Your task to perform on an android device: Clear the cart on ebay. Search for "macbook pro" on ebay, select the first entry, add it to the cart, then select checkout. Image 0: 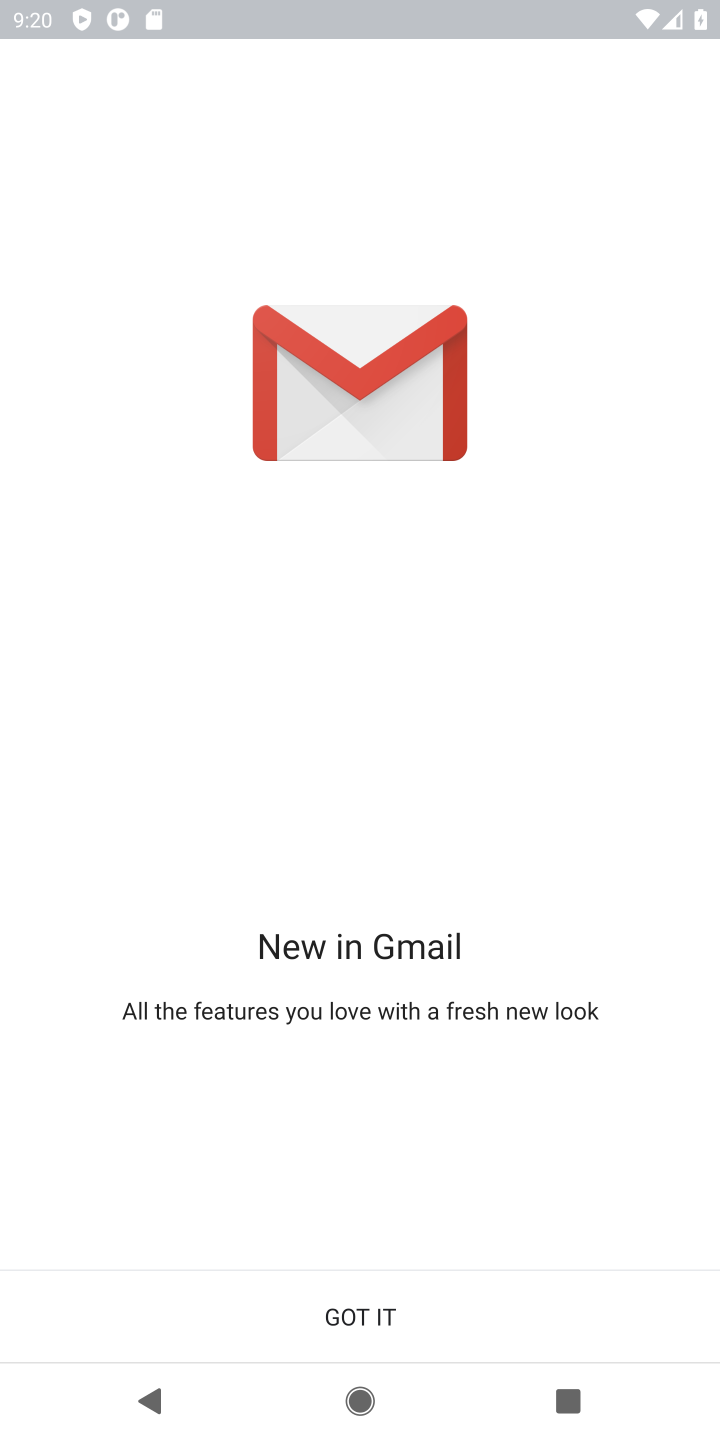
Step 0: press home button
Your task to perform on an android device: Clear the cart on ebay. Search for "macbook pro" on ebay, select the first entry, add it to the cart, then select checkout. Image 1: 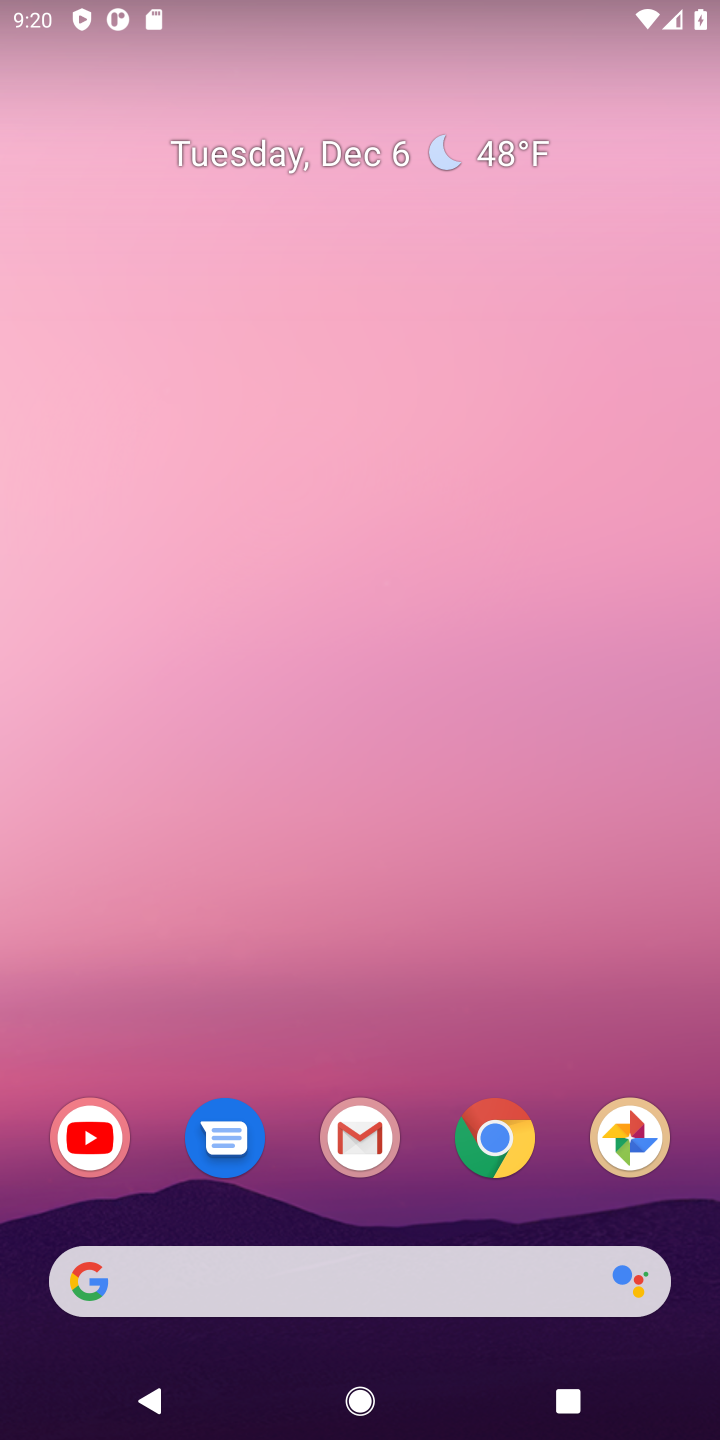
Step 1: click (493, 1151)
Your task to perform on an android device: Clear the cart on ebay. Search for "macbook pro" on ebay, select the first entry, add it to the cart, then select checkout. Image 2: 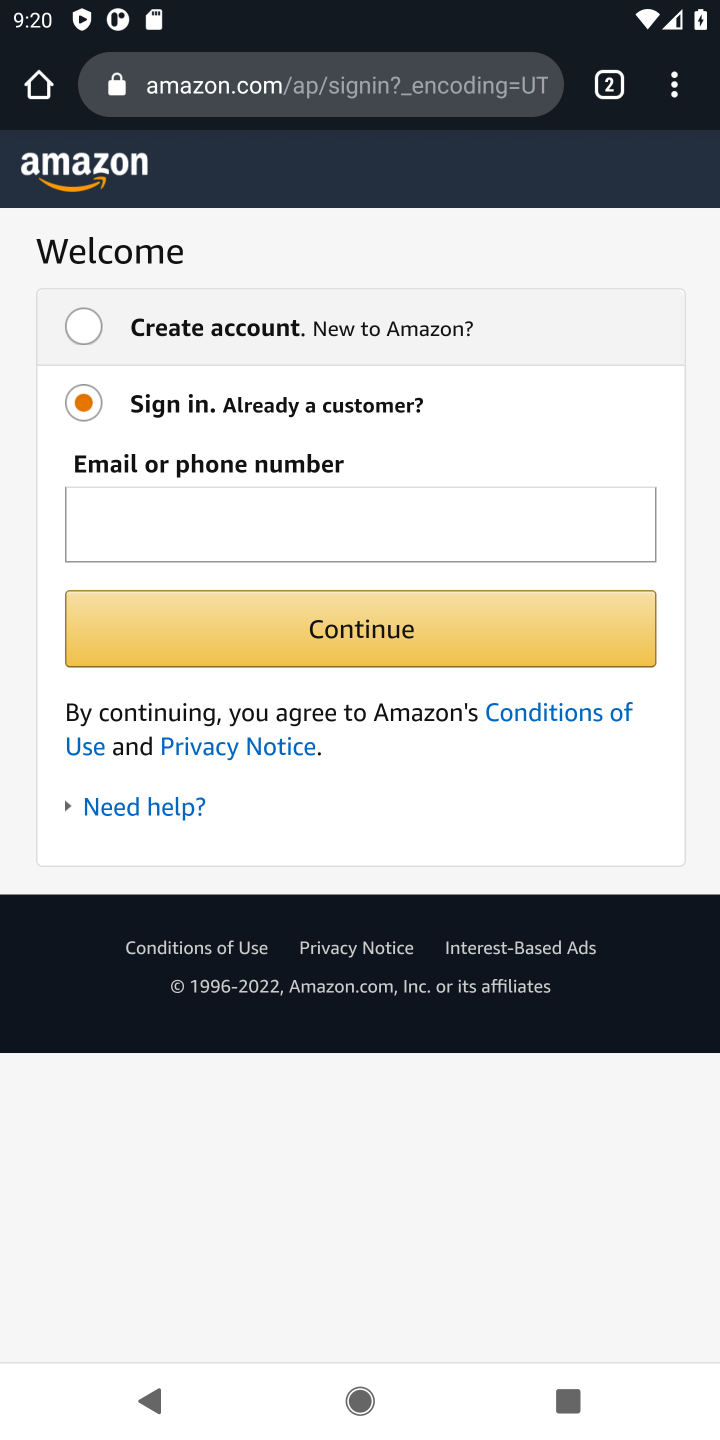
Step 2: click (292, 99)
Your task to perform on an android device: Clear the cart on ebay. Search for "macbook pro" on ebay, select the first entry, add it to the cart, then select checkout. Image 3: 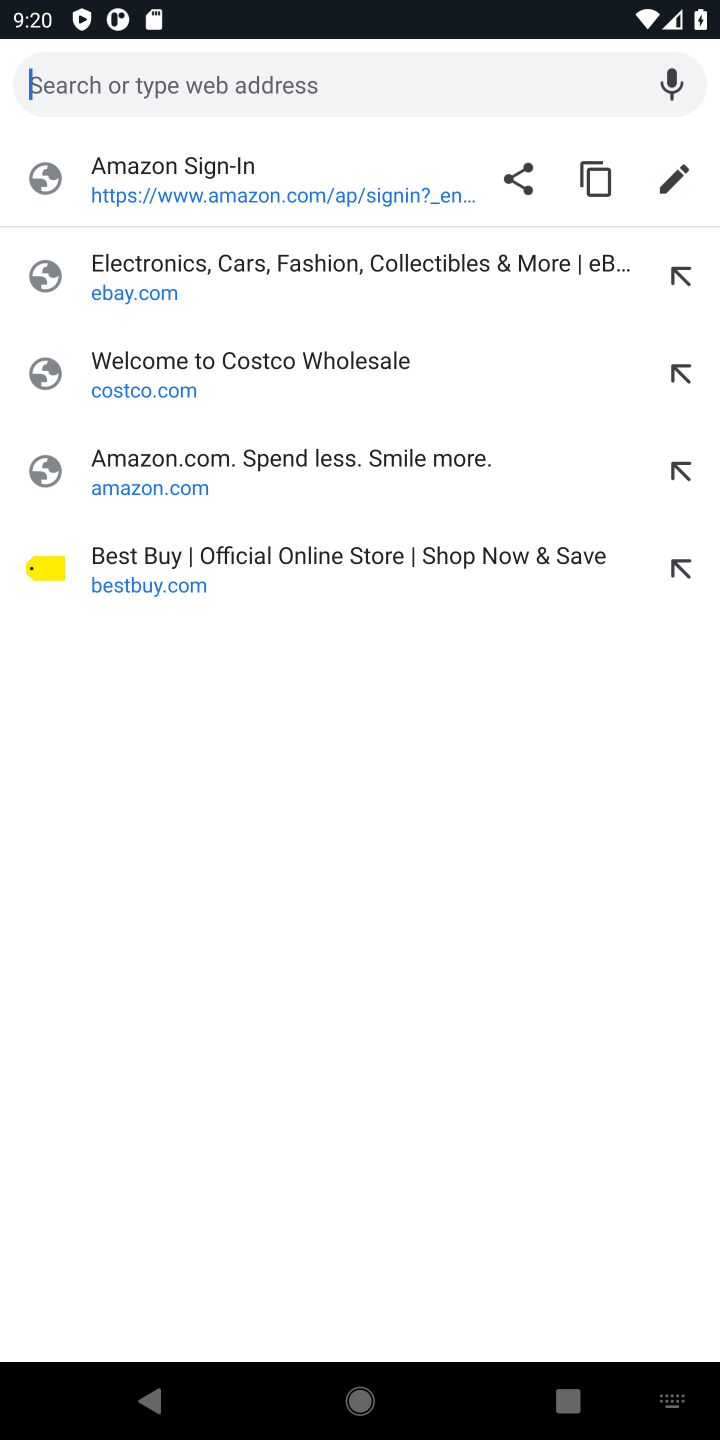
Step 3: click (145, 278)
Your task to perform on an android device: Clear the cart on ebay. Search for "macbook pro" on ebay, select the first entry, add it to the cart, then select checkout. Image 4: 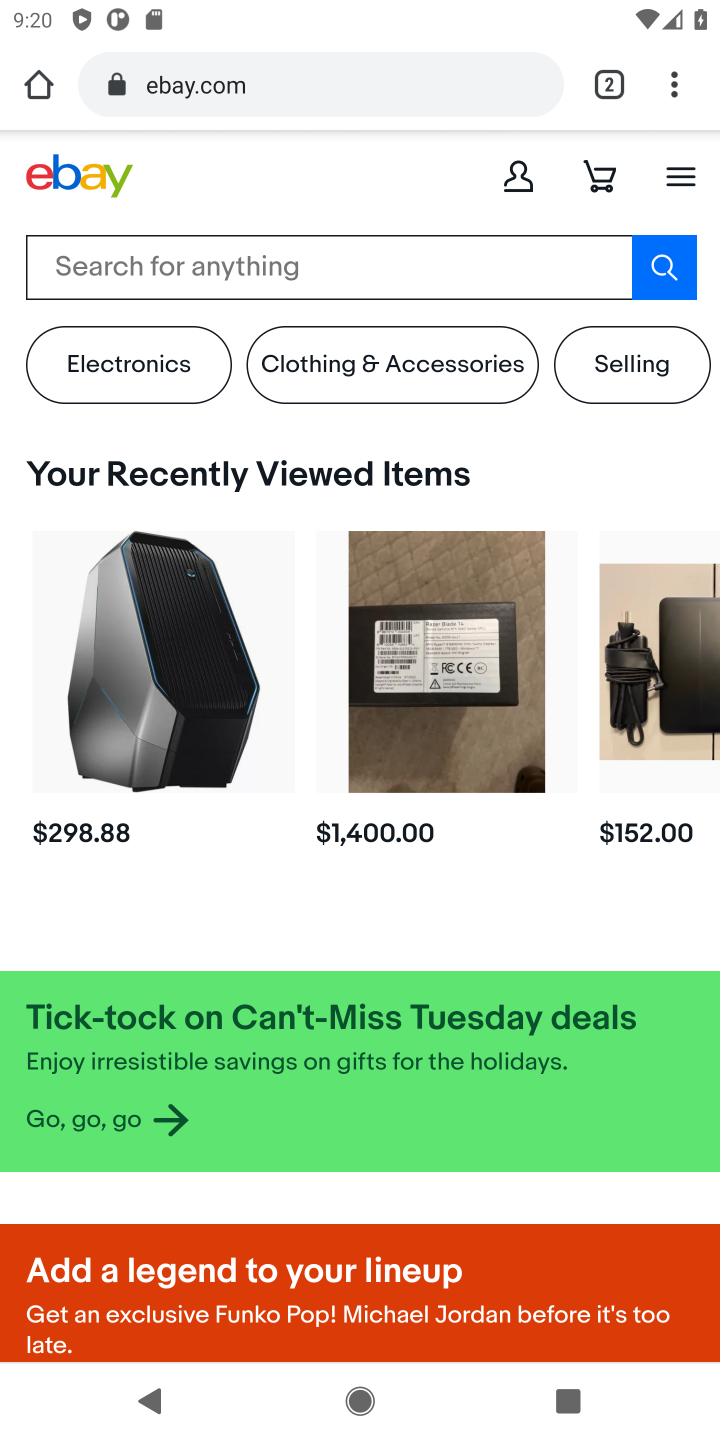
Step 4: click (596, 179)
Your task to perform on an android device: Clear the cart on ebay. Search for "macbook pro" on ebay, select the first entry, add it to the cart, then select checkout. Image 5: 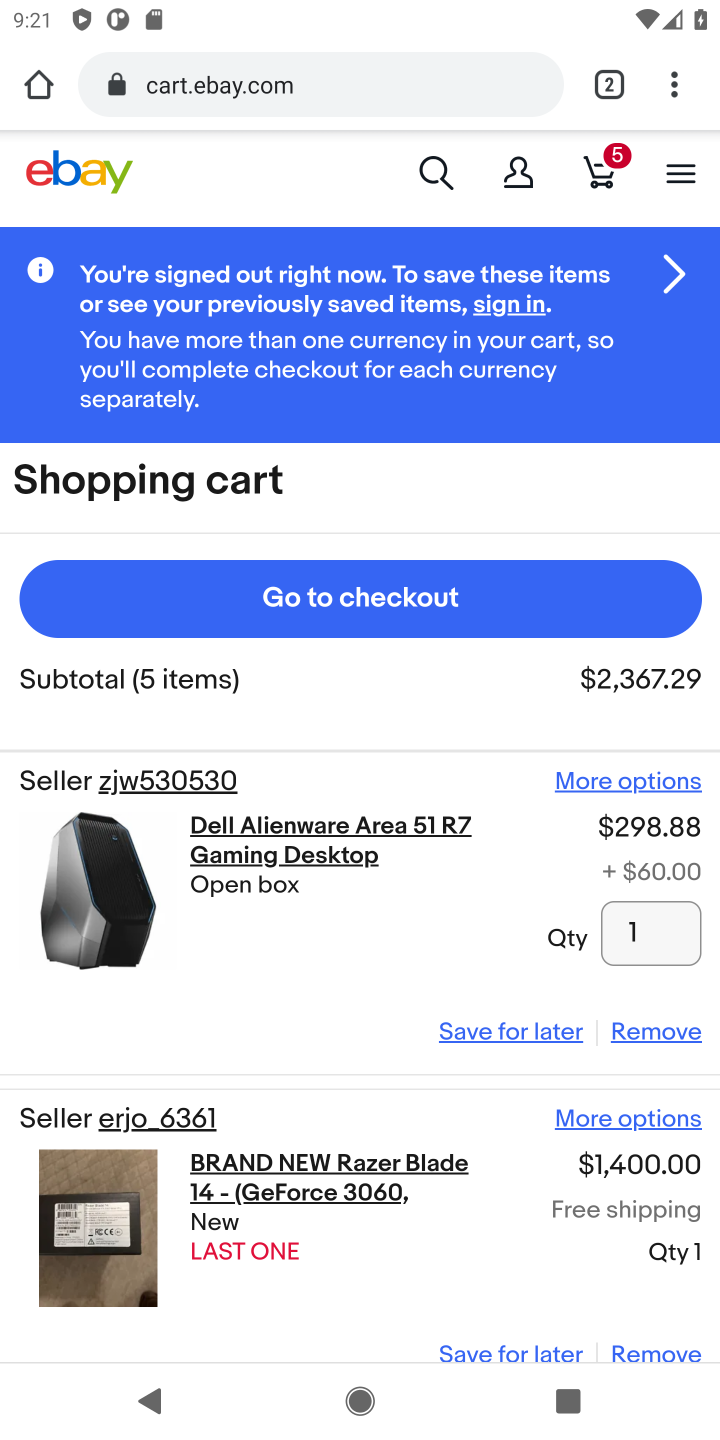
Step 5: click (633, 1030)
Your task to perform on an android device: Clear the cart on ebay. Search for "macbook pro" on ebay, select the first entry, add it to the cart, then select checkout. Image 6: 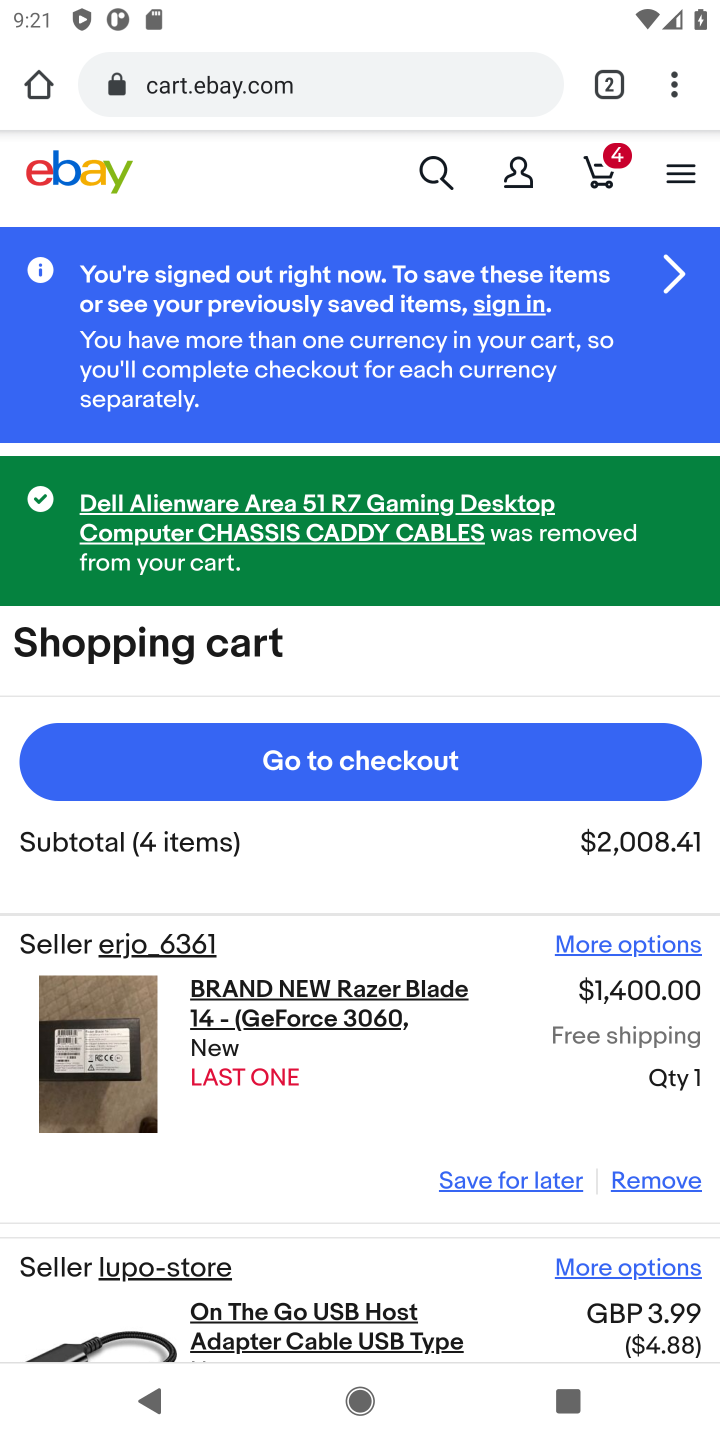
Step 6: click (641, 1181)
Your task to perform on an android device: Clear the cart on ebay. Search for "macbook pro" on ebay, select the first entry, add it to the cart, then select checkout. Image 7: 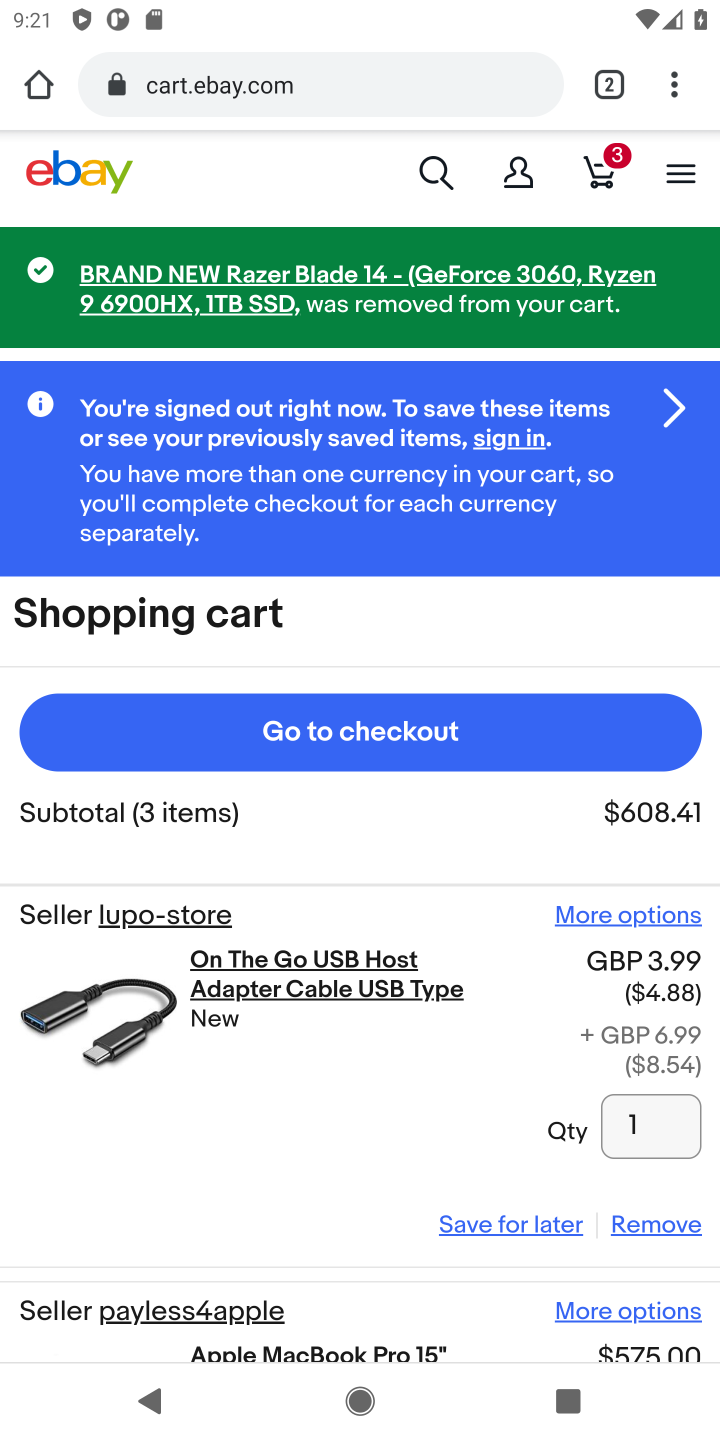
Step 7: click (642, 1232)
Your task to perform on an android device: Clear the cart on ebay. Search for "macbook pro" on ebay, select the first entry, add it to the cart, then select checkout. Image 8: 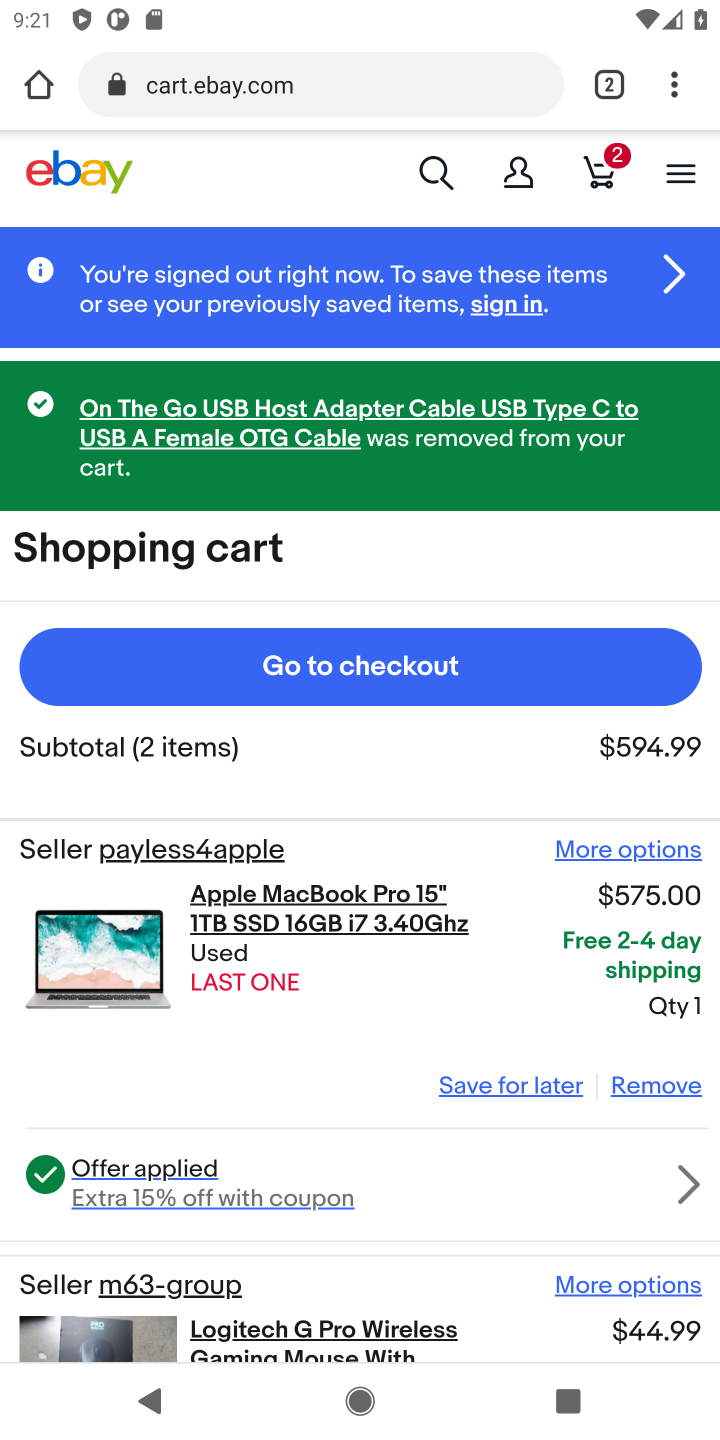
Step 8: click (654, 1096)
Your task to perform on an android device: Clear the cart on ebay. Search for "macbook pro" on ebay, select the first entry, add it to the cart, then select checkout. Image 9: 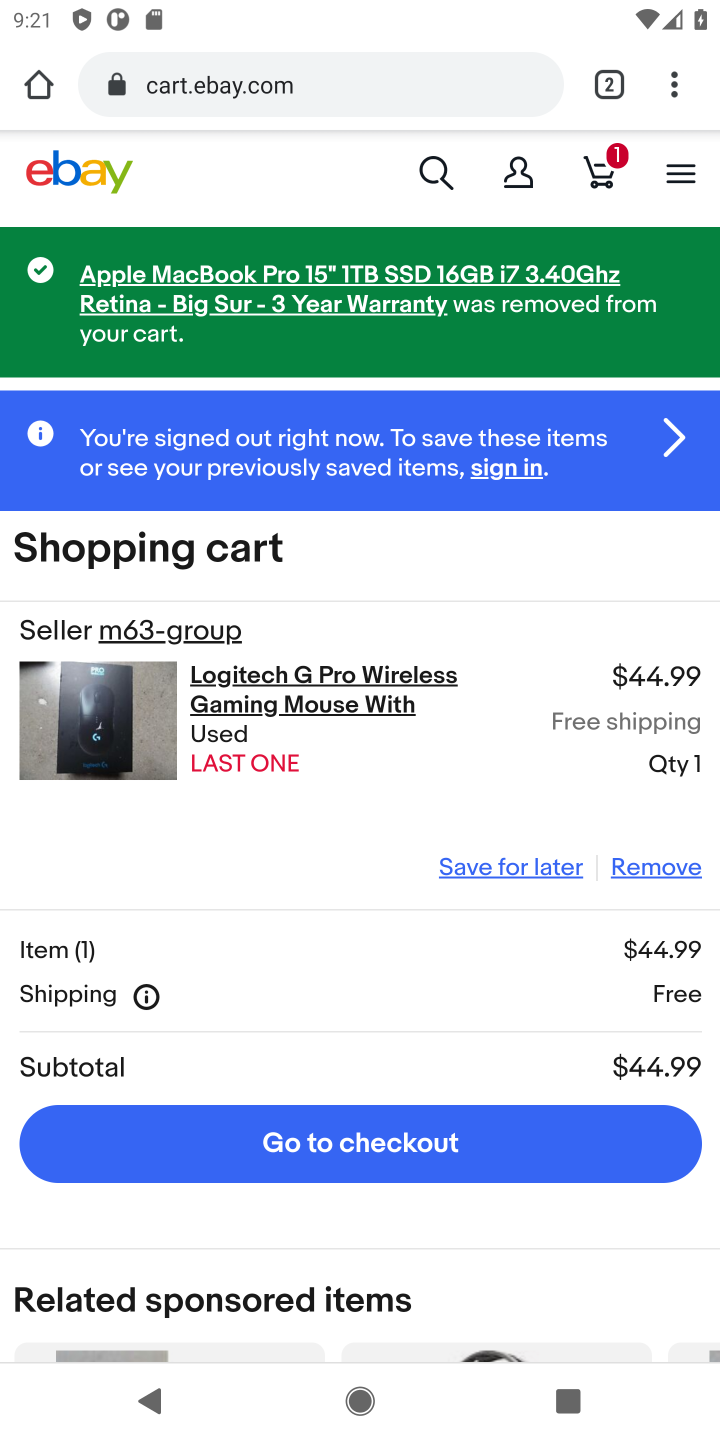
Step 9: click (653, 876)
Your task to perform on an android device: Clear the cart on ebay. Search for "macbook pro" on ebay, select the first entry, add it to the cart, then select checkout. Image 10: 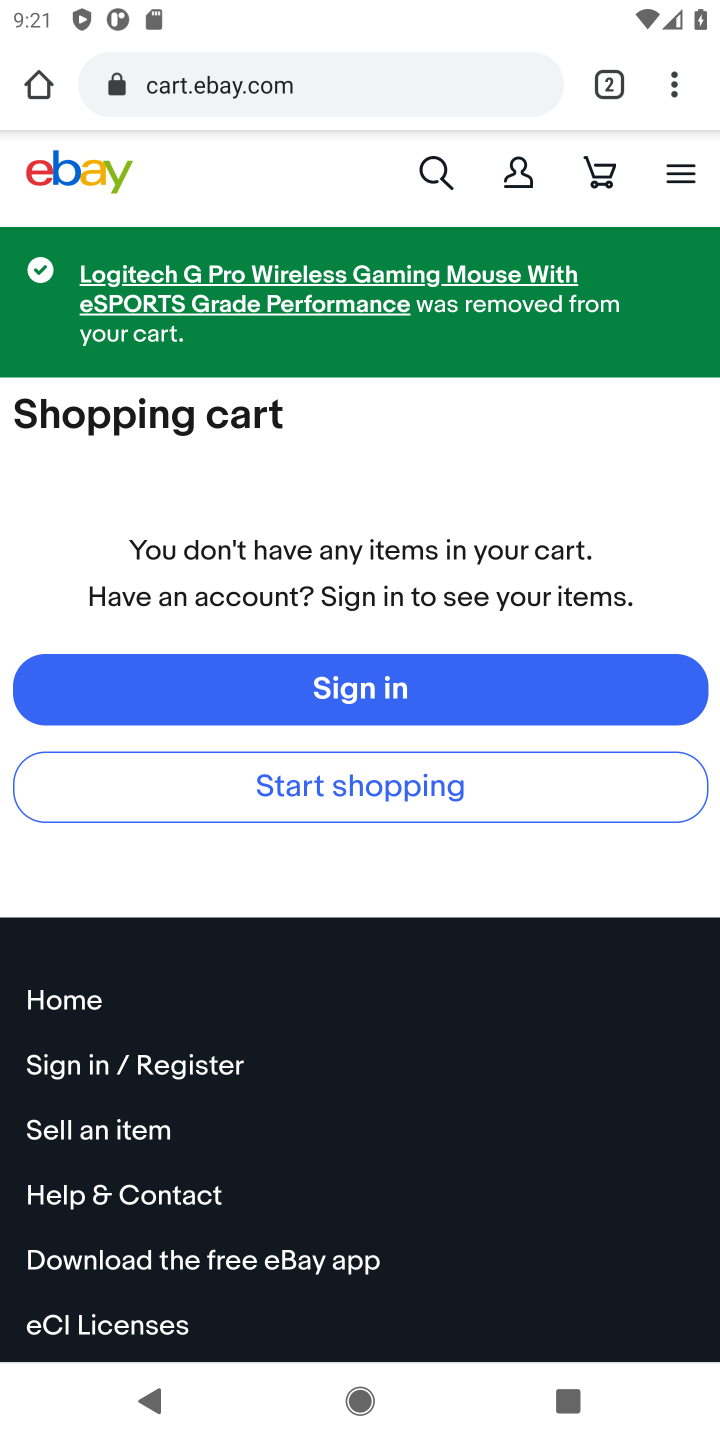
Step 10: click (435, 182)
Your task to perform on an android device: Clear the cart on ebay. Search for "macbook pro" on ebay, select the first entry, add it to the cart, then select checkout. Image 11: 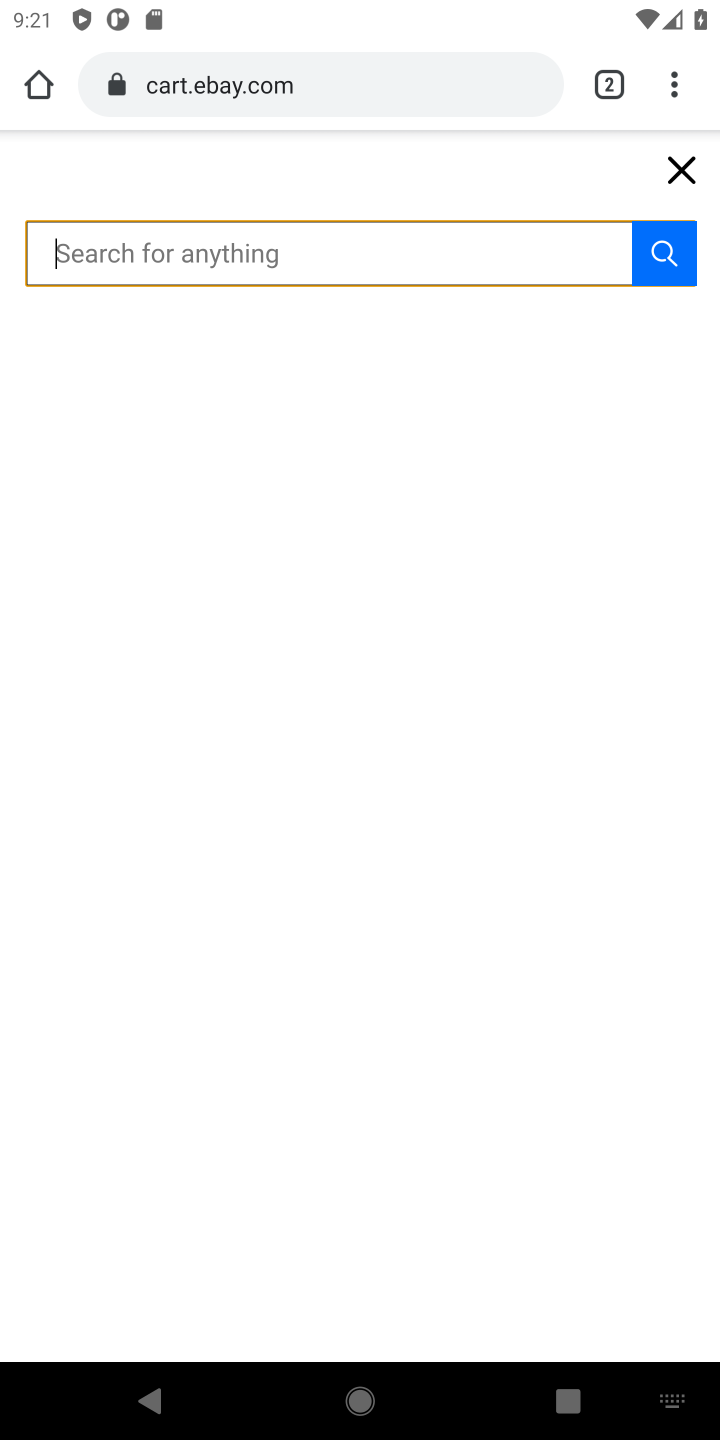
Step 11: type "macbook pro"
Your task to perform on an android device: Clear the cart on ebay. Search for "macbook pro" on ebay, select the first entry, add it to the cart, then select checkout. Image 12: 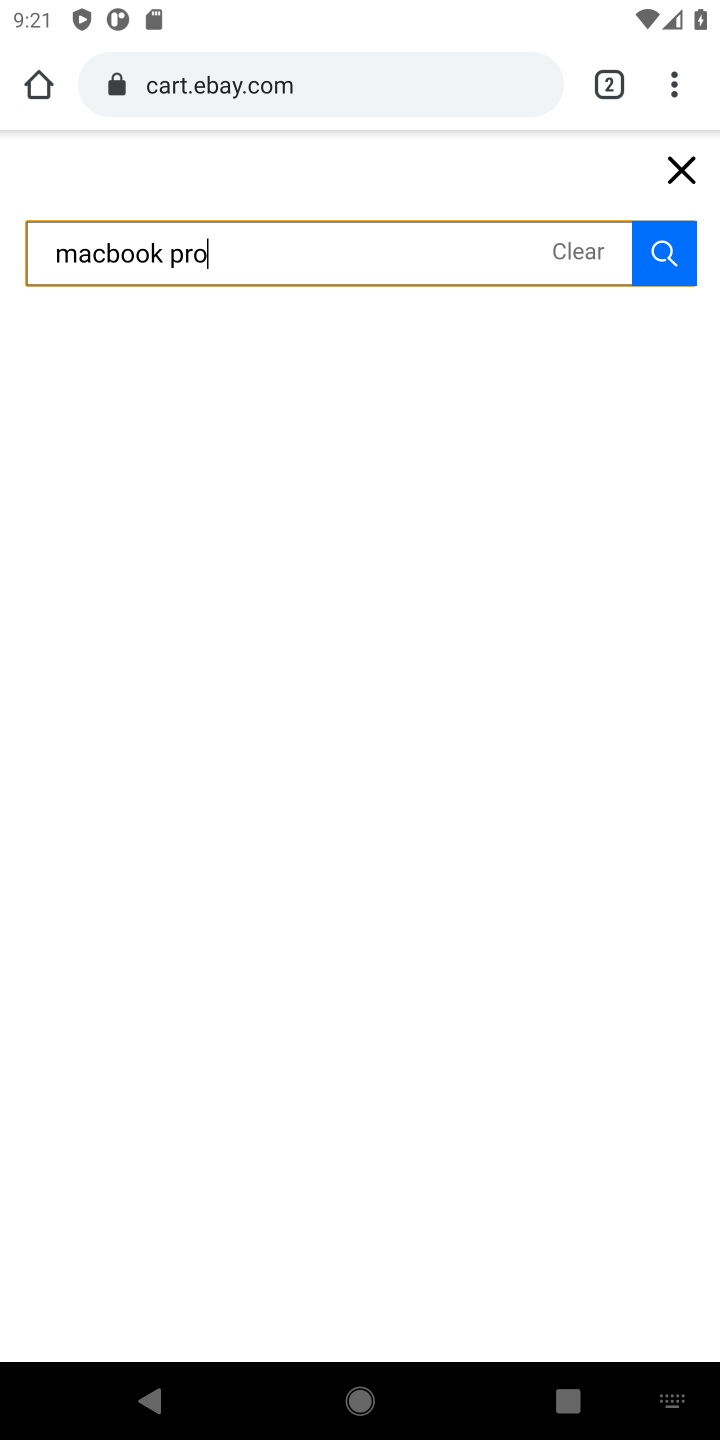
Step 12: click (656, 267)
Your task to perform on an android device: Clear the cart on ebay. Search for "macbook pro" on ebay, select the first entry, add it to the cart, then select checkout. Image 13: 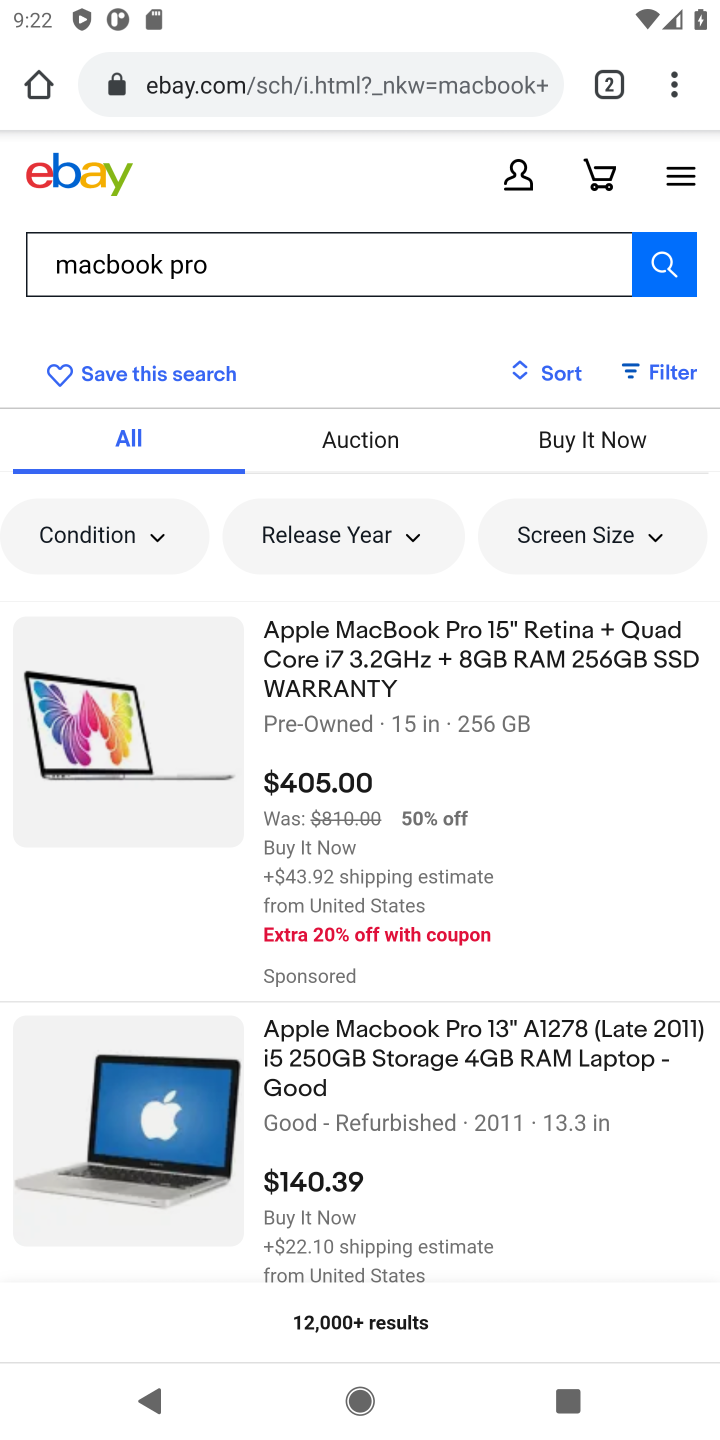
Step 13: click (349, 665)
Your task to perform on an android device: Clear the cart on ebay. Search for "macbook pro" on ebay, select the first entry, add it to the cart, then select checkout. Image 14: 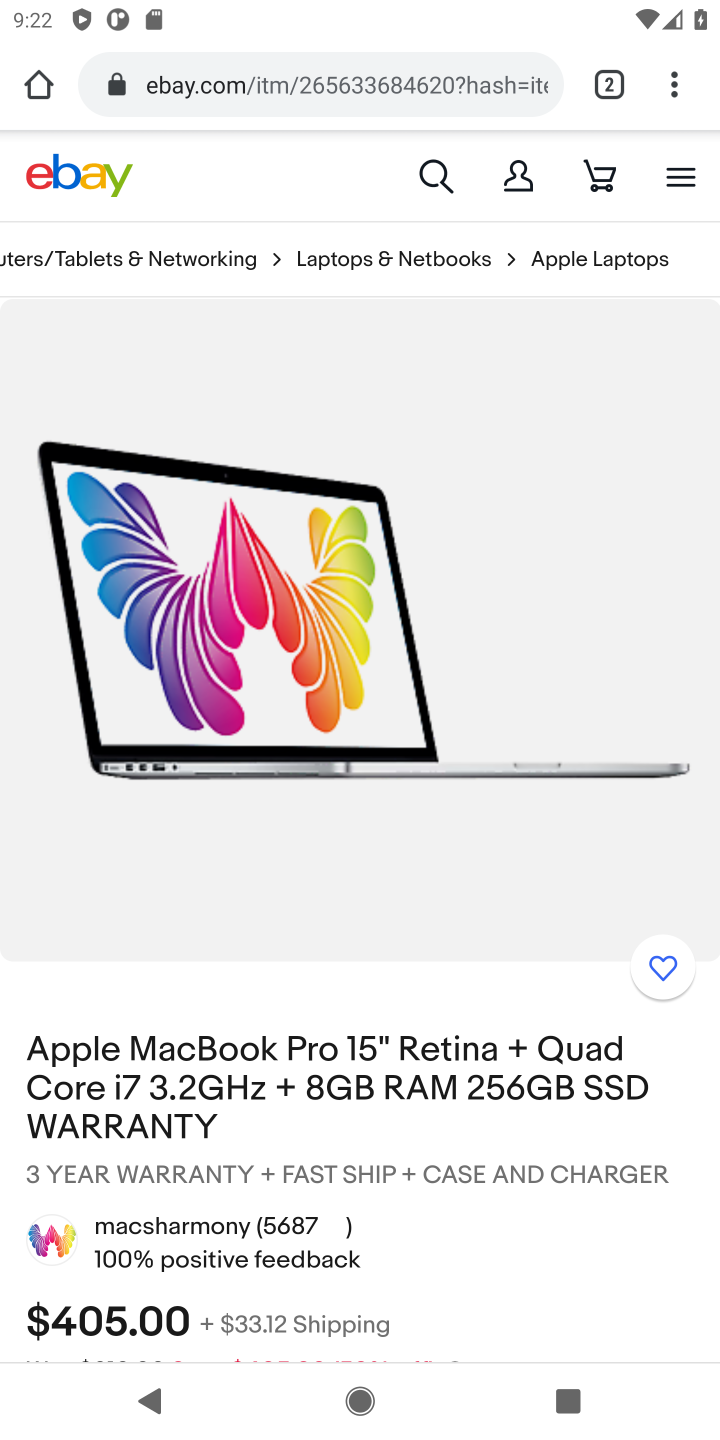
Step 14: drag from (368, 1047) to (356, 555)
Your task to perform on an android device: Clear the cart on ebay. Search for "macbook pro" on ebay, select the first entry, add it to the cart, then select checkout. Image 15: 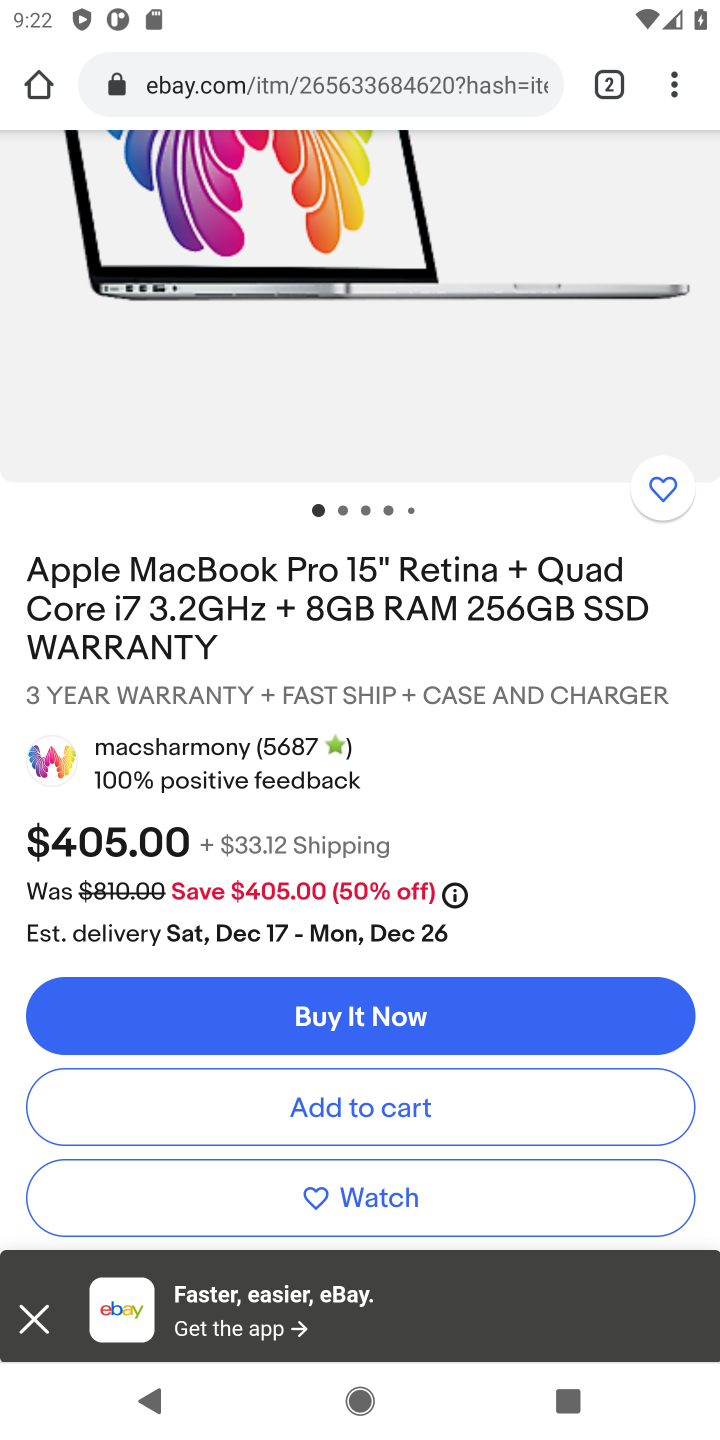
Step 15: click (356, 1118)
Your task to perform on an android device: Clear the cart on ebay. Search for "macbook pro" on ebay, select the first entry, add it to the cart, then select checkout. Image 16: 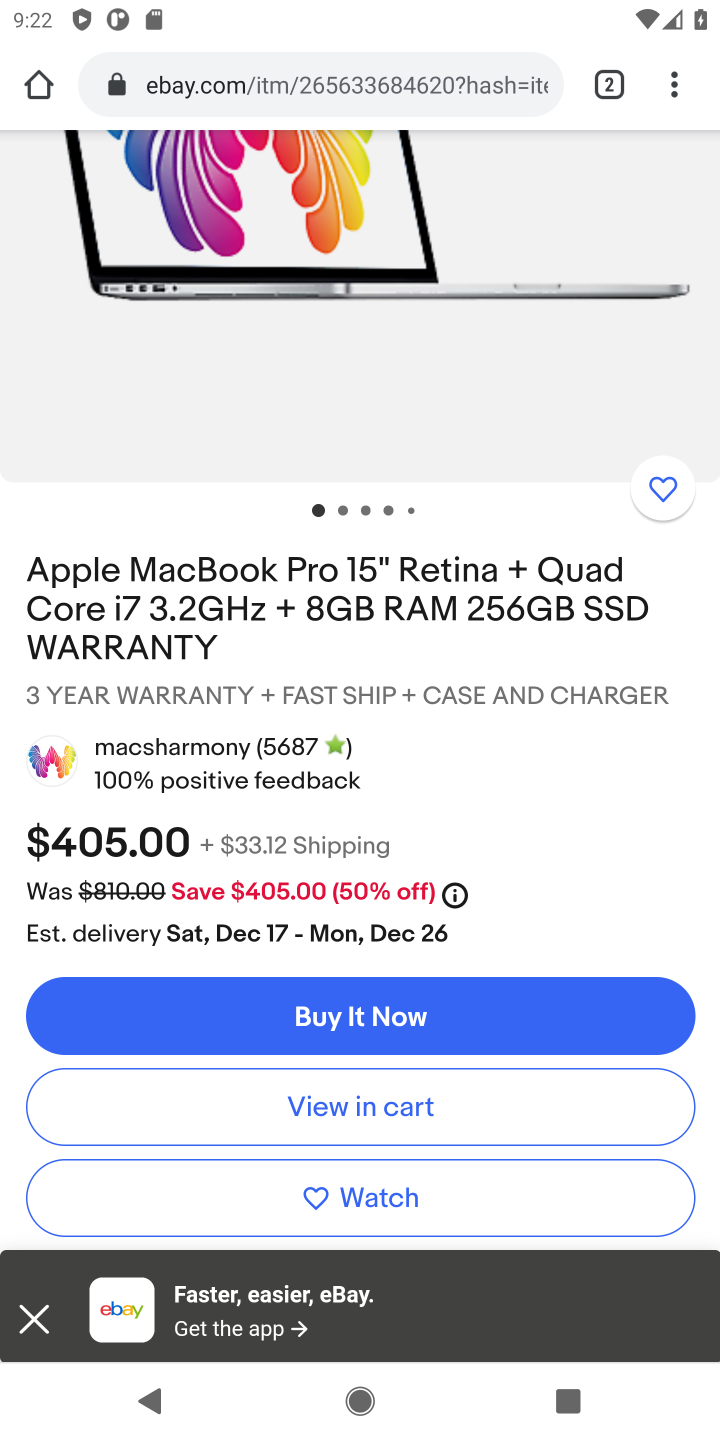
Step 16: click (356, 1118)
Your task to perform on an android device: Clear the cart on ebay. Search for "macbook pro" on ebay, select the first entry, add it to the cart, then select checkout. Image 17: 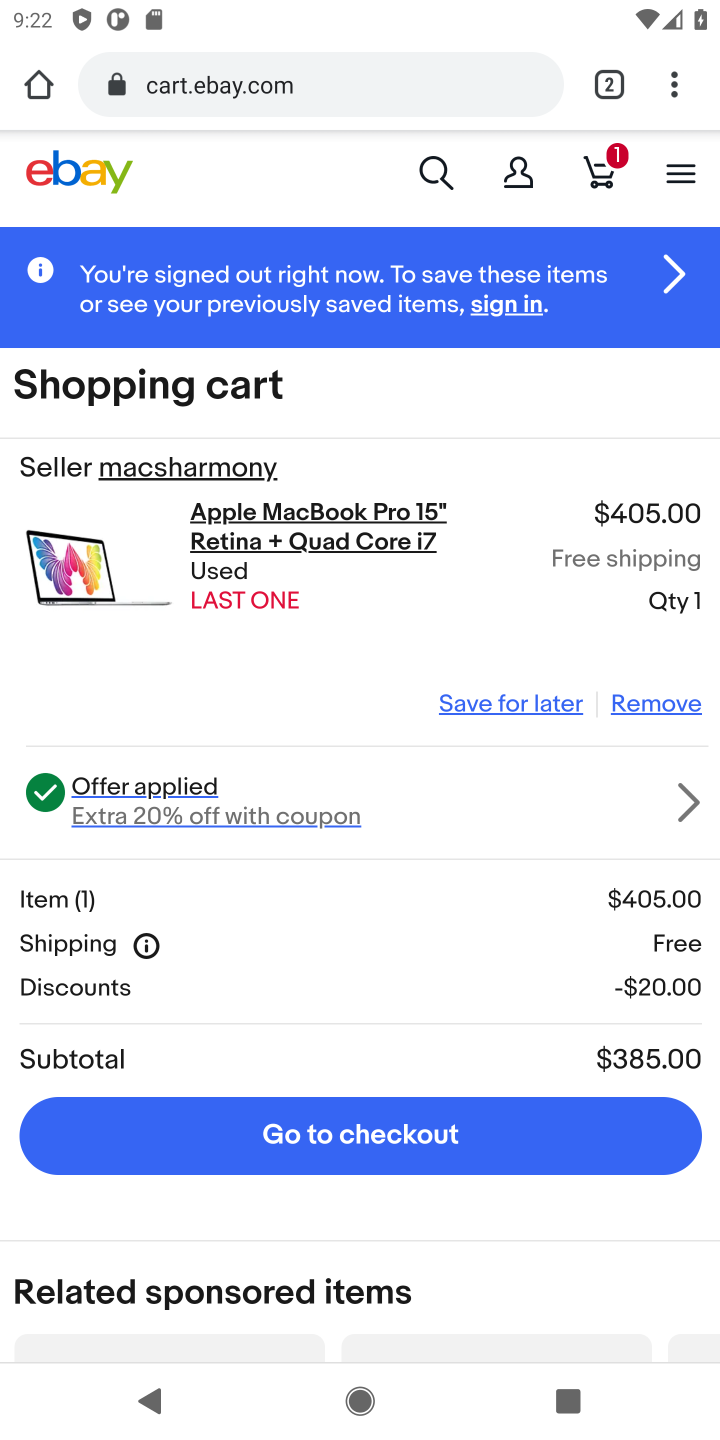
Step 17: click (356, 1125)
Your task to perform on an android device: Clear the cart on ebay. Search for "macbook pro" on ebay, select the first entry, add it to the cart, then select checkout. Image 18: 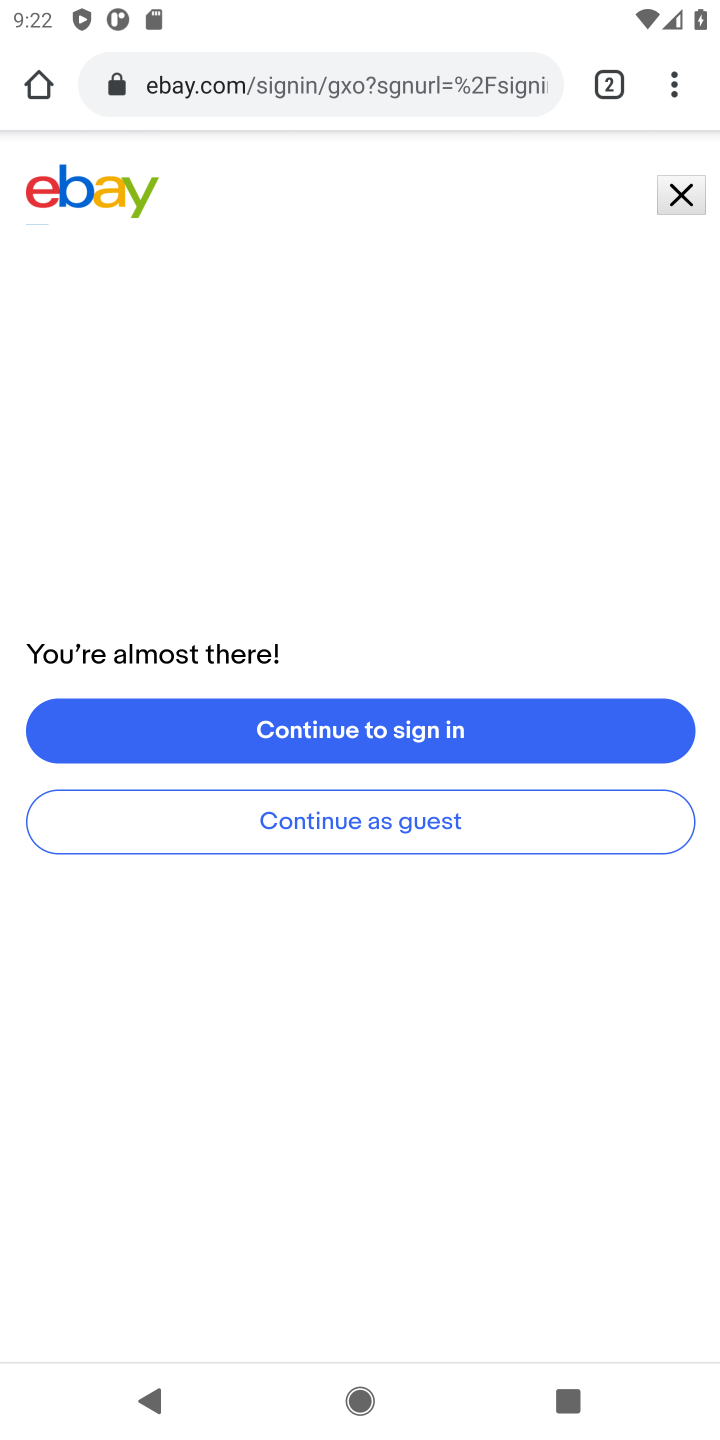
Step 18: task complete